Your task to perform on an android device: Open calendar and show me the third week of next month Image 0: 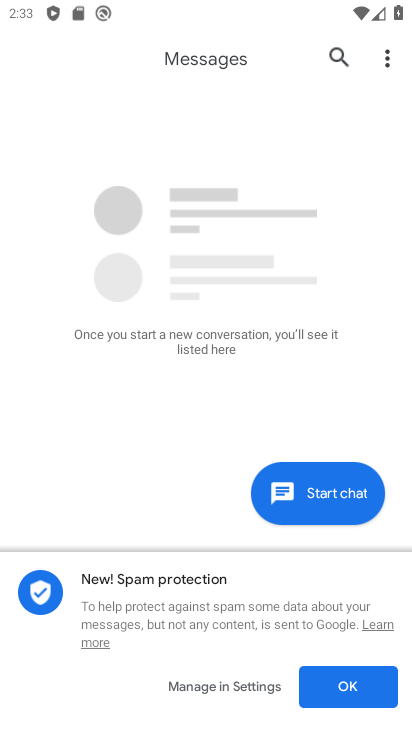
Step 0: press home button
Your task to perform on an android device: Open calendar and show me the third week of next month Image 1: 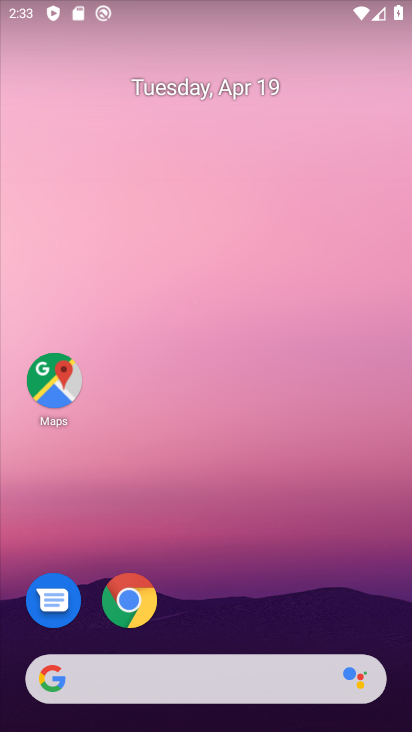
Step 1: drag from (332, 610) to (273, 195)
Your task to perform on an android device: Open calendar and show me the third week of next month Image 2: 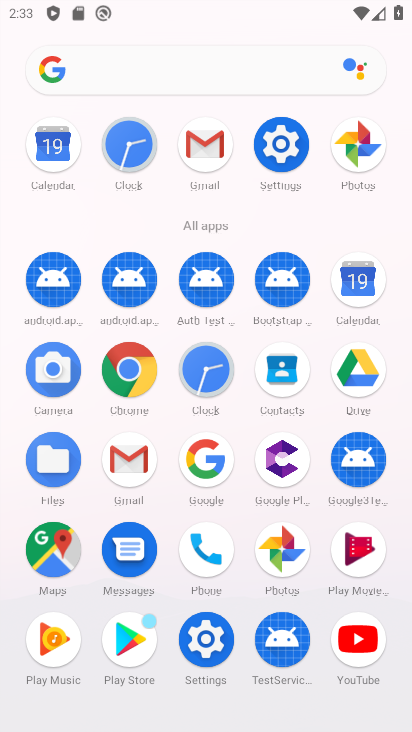
Step 2: click (355, 279)
Your task to perform on an android device: Open calendar and show me the third week of next month Image 3: 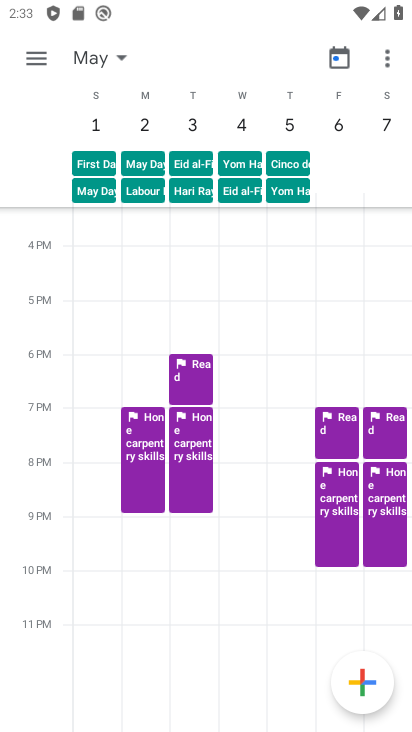
Step 3: click (119, 56)
Your task to perform on an android device: Open calendar and show me the third week of next month Image 4: 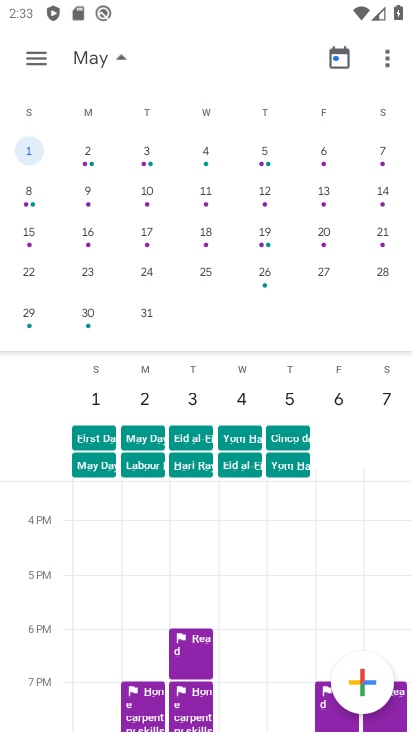
Step 4: click (23, 232)
Your task to perform on an android device: Open calendar and show me the third week of next month Image 5: 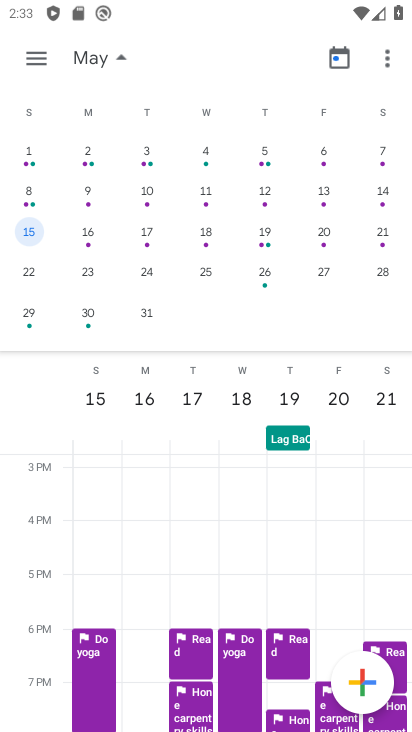
Step 5: task complete